Your task to perform on an android device: toggle notifications settings in the gmail app Image 0: 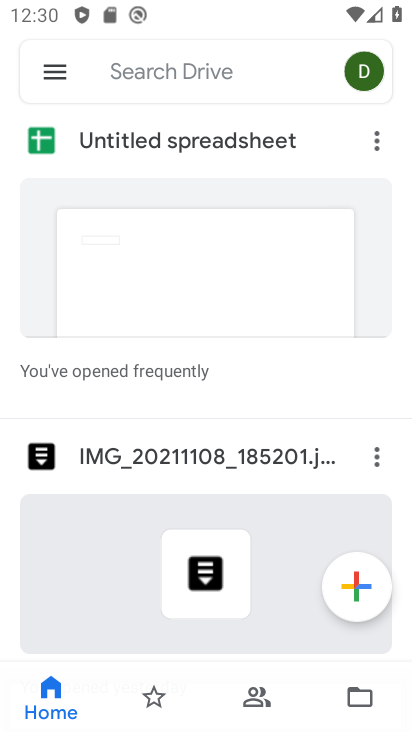
Step 0: press back button
Your task to perform on an android device: toggle notifications settings in the gmail app Image 1: 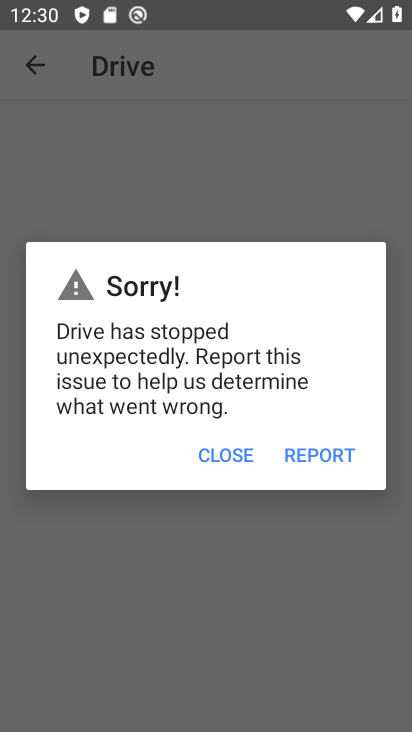
Step 1: press home button
Your task to perform on an android device: toggle notifications settings in the gmail app Image 2: 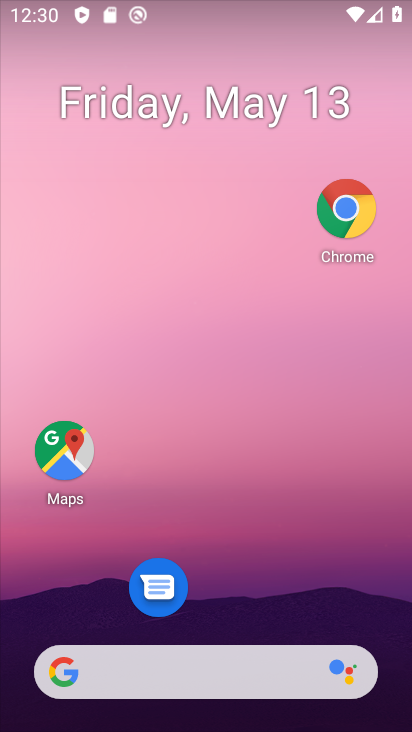
Step 2: drag from (225, 543) to (296, 8)
Your task to perform on an android device: toggle notifications settings in the gmail app Image 3: 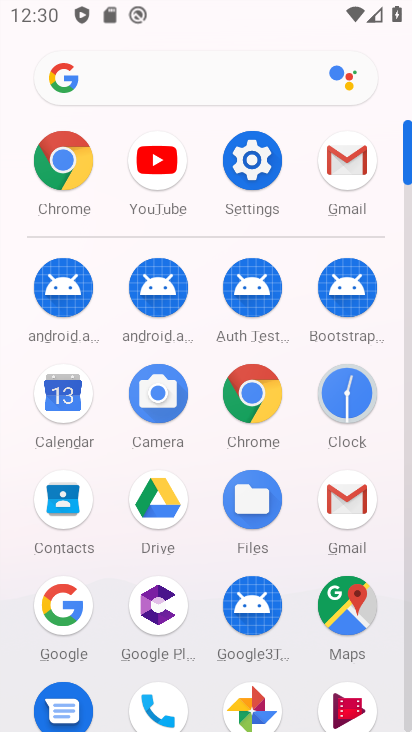
Step 3: drag from (195, 619) to (324, 116)
Your task to perform on an android device: toggle notifications settings in the gmail app Image 4: 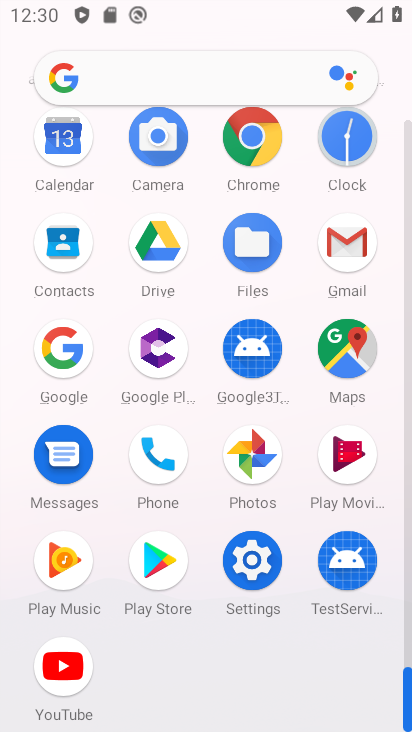
Step 4: click (340, 244)
Your task to perform on an android device: toggle notifications settings in the gmail app Image 5: 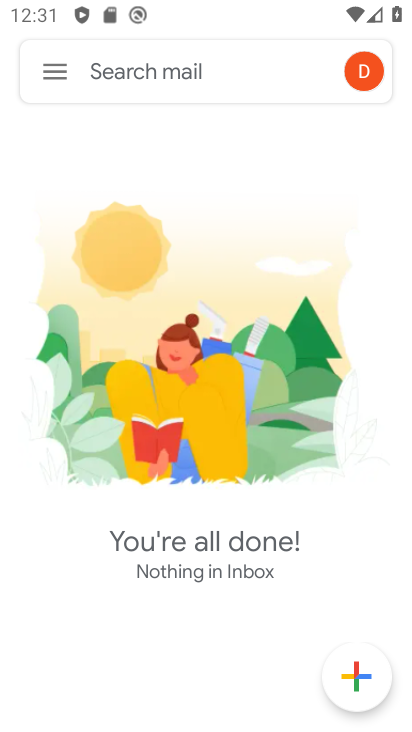
Step 5: click (51, 71)
Your task to perform on an android device: toggle notifications settings in the gmail app Image 6: 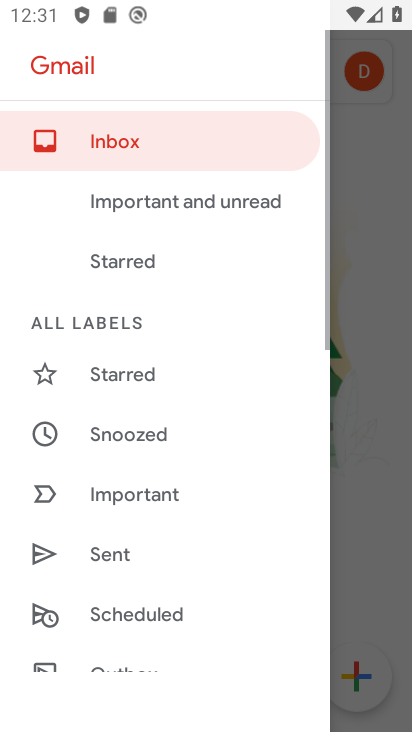
Step 6: drag from (155, 671) to (260, 43)
Your task to perform on an android device: toggle notifications settings in the gmail app Image 7: 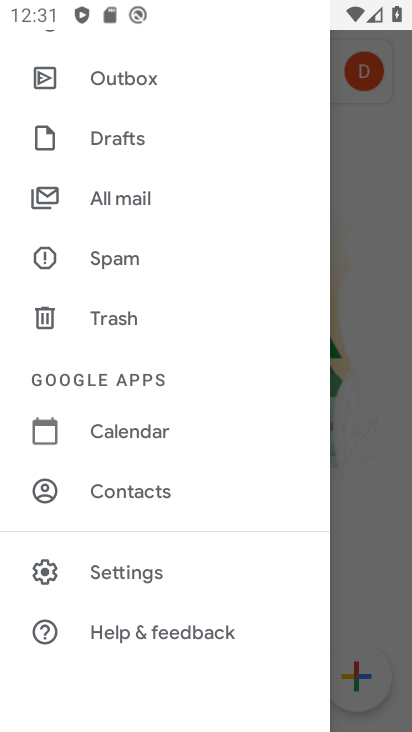
Step 7: click (111, 574)
Your task to perform on an android device: toggle notifications settings in the gmail app Image 8: 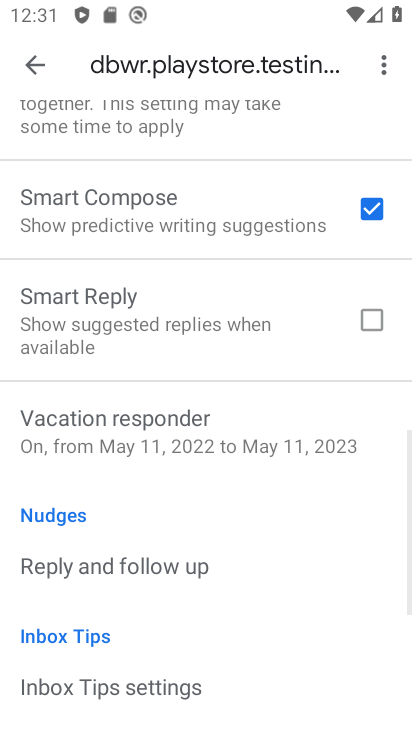
Step 8: drag from (138, 603) to (134, 726)
Your task to perform on an android device: toggle notifications settings in the gmail app Image 9: 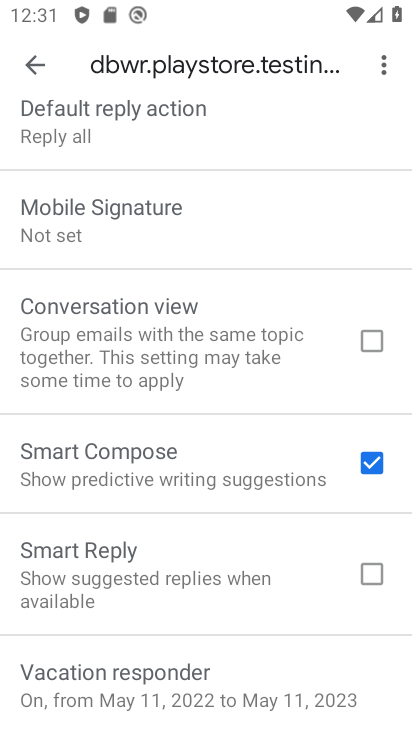
Step 9: drag from (157, 265) to (97, 722)
Your task to perform on an android device: toggle notifications settings in the gmail app Image 10: 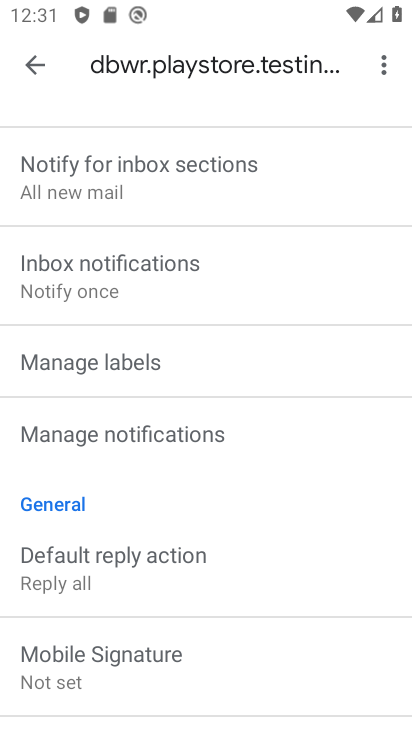
Step 10: click (160, 430)
Your task to perform on an android device: toggle notifications settings in the gmail app Image 11: 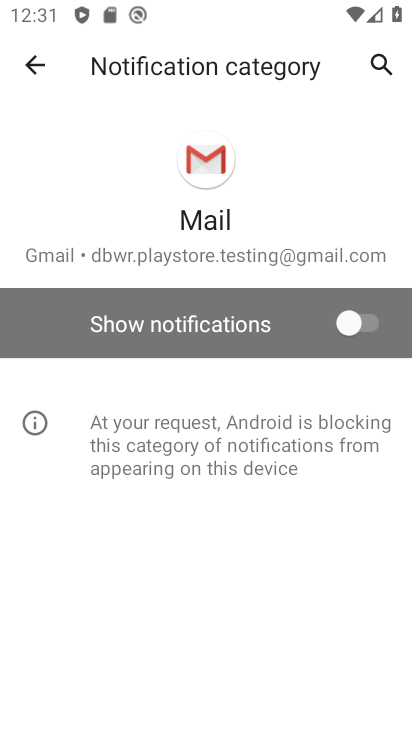
Step 11: click (346, 315)
Your task to perform on an android device: toggle notifications settings in the gmail app Image 12: 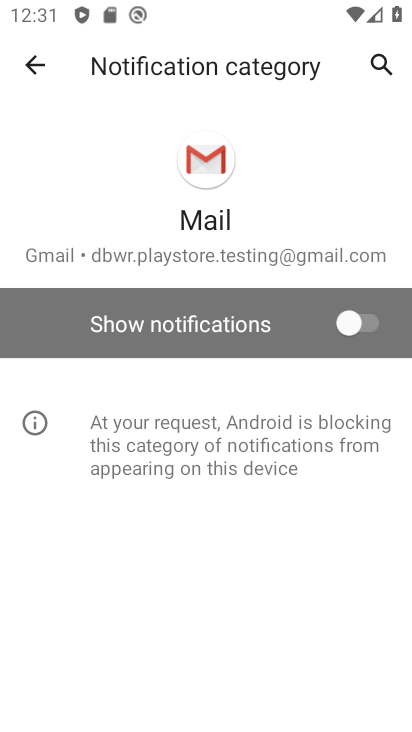
Step 12: task complete